Your task to perform on an android device: Show me the alarms in the clock app Image 0: 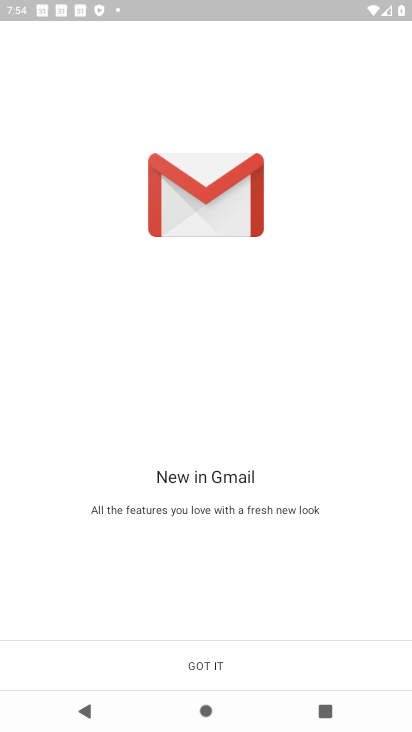
Step 0: press home button
Your task to perform on an android device: Show me the alarms in the clock app Image 1: 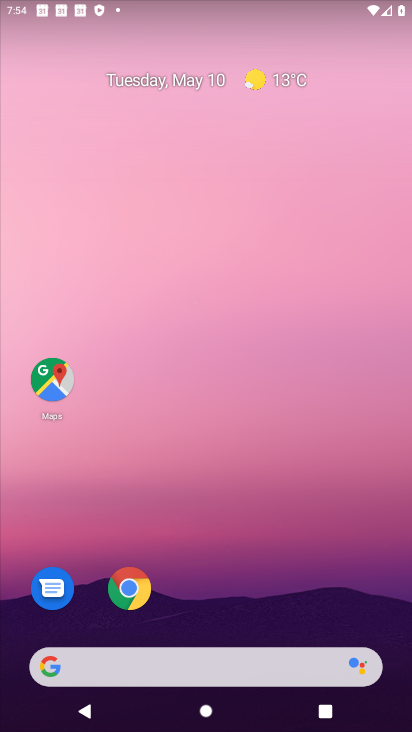
Step 1: drag from (247, 614) to (198, 436)
Your task to perform on an android device: Show me the alarms in the clock app Image 2: 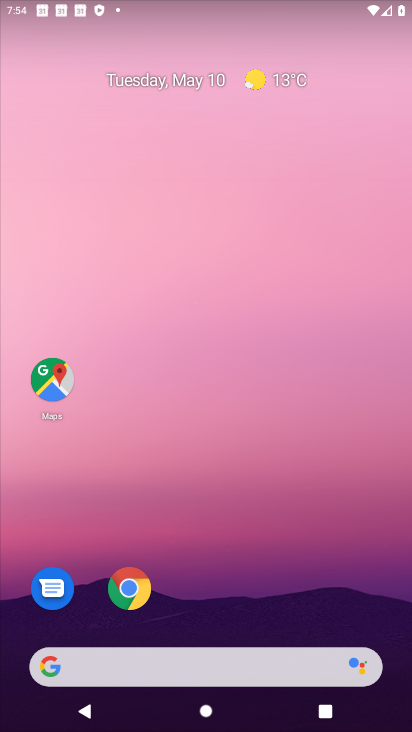
Step 2: drag from (195, 619) to (214, 9)
Your task to perform on an android device: Show me the alarms in the clock app Image 3: 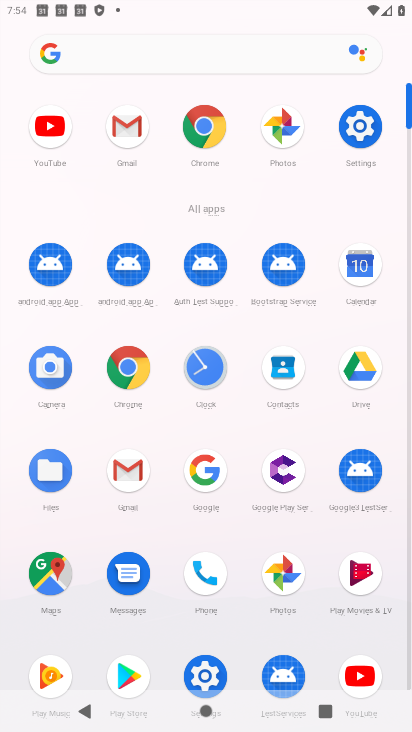
Step 3: click (196, 378)
Your task to perform on an android device: Show me the alarms in the clock app Image 4: 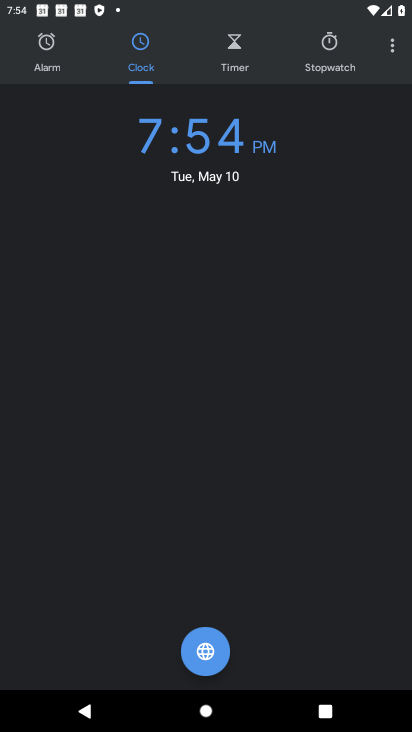
Step 4: click (42, 51)
Your task to perform on an android device: Show me the alarms in the clock app Image 5: 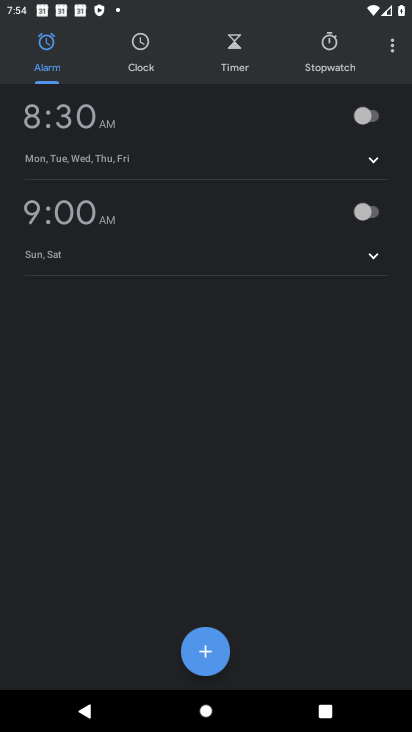
Step 5: task complete